Your task to perform on an android device: find photos in the google photos app Image 0: 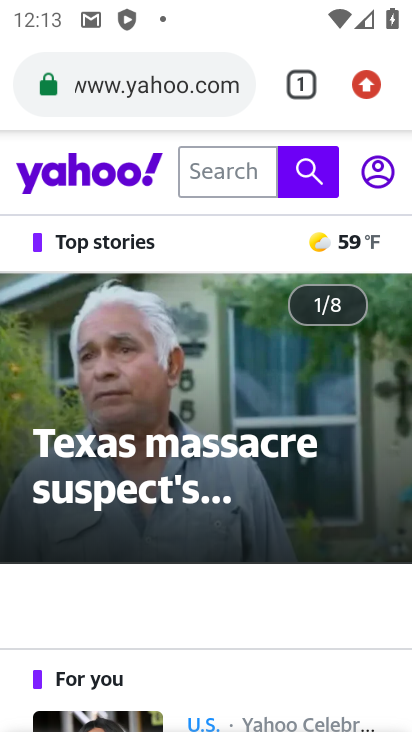
Step 0: press home button
Your task to perform on an android device: find photos in the google photos app Image 1: 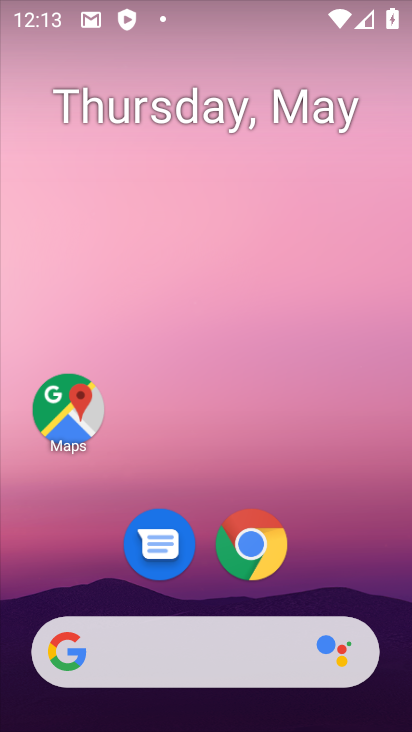
Step 1: drag from (312, 714) to (234, 78)
Your task to perform on an android device: find photos in the google photos app Image 2: 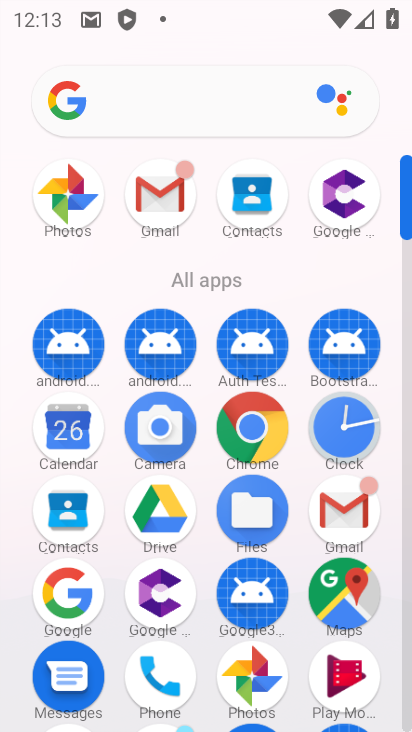
Step 2: click (255, 648)
Your task to perform on an android device: find photos in the google photos app Image 3: 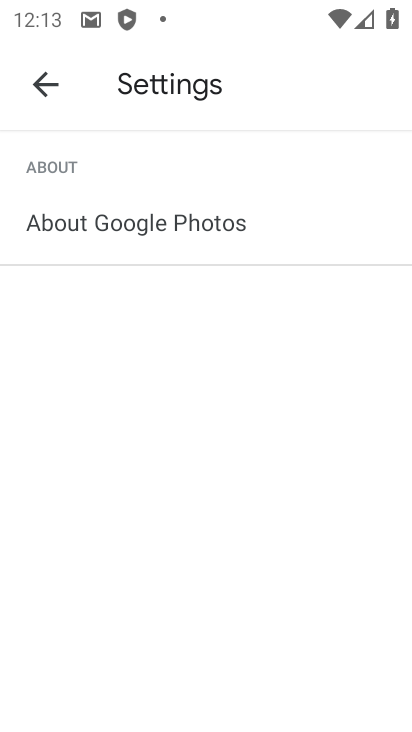
Step 3: click (33, 84)
Your task to perform on an android device: find photos in the google photos app Image 4: 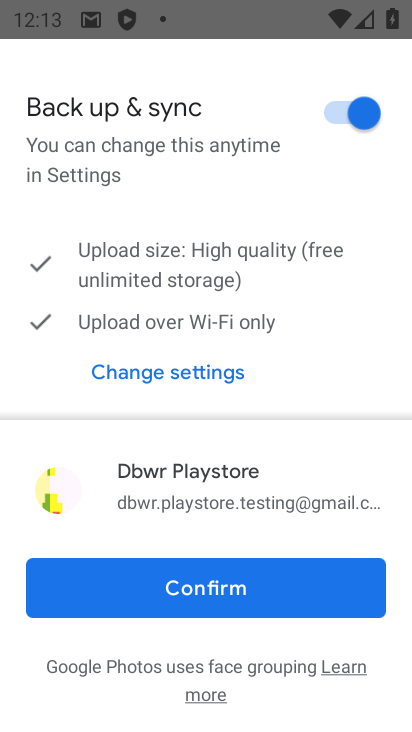
Step 4: task complete